Your task to perform on an android device: What's the weather today? Image 0: 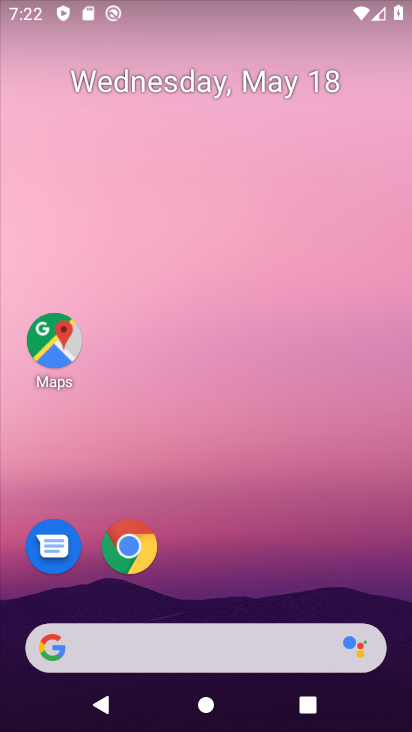
Step 0: drag from (357, 559) to (368, 64)
Your task to perform on an android device: What's the weather today? Image 1: 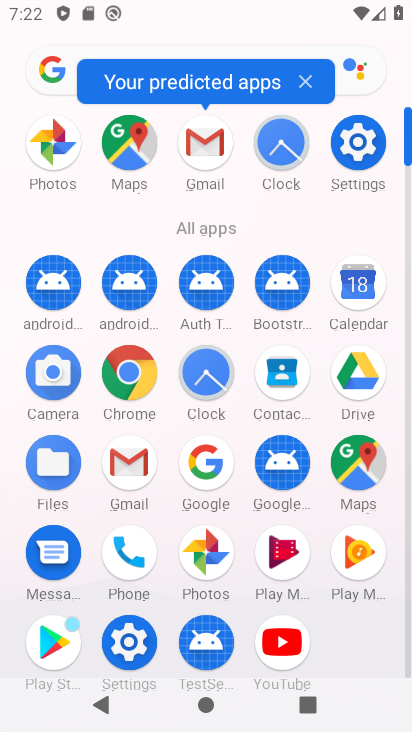
Step 1: drag from (369, 662) to (356, 412)
Your task to perform on an android device: What's the weather today? Image 2: 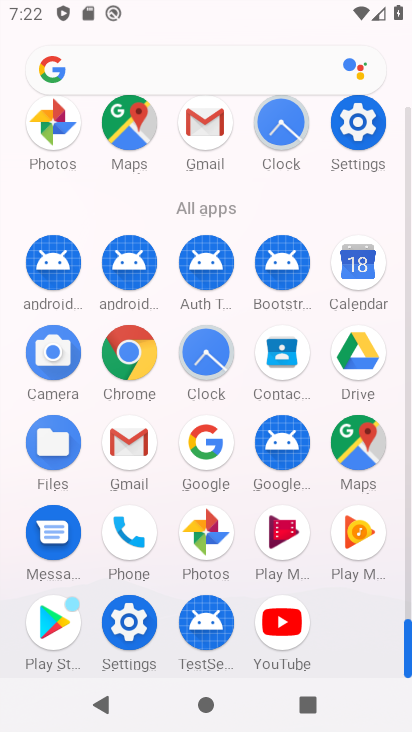
Step 2: click (206, 455)
Your task to perform on an android device: What's the weather today? Image 3: 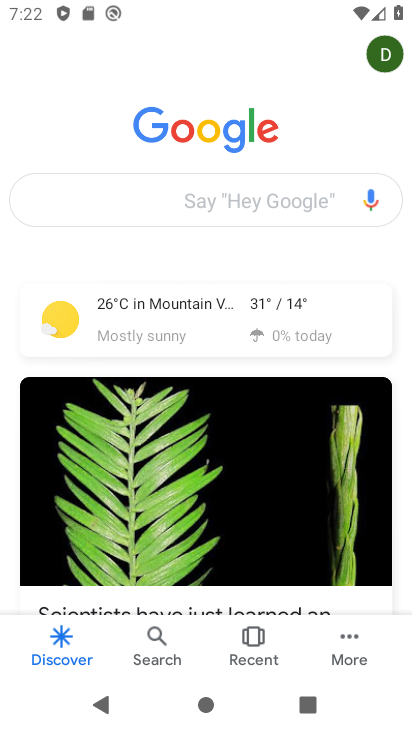
Step 3: click (195, 212)
Your task to perform on an android device: What's the weather today? Image 4: 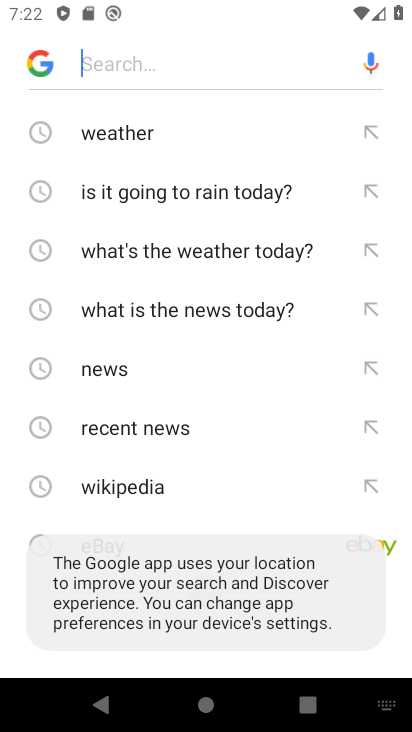
Step 4: click (157, 137)
Your task to perform on an android device: What's the weather today? Image 5: 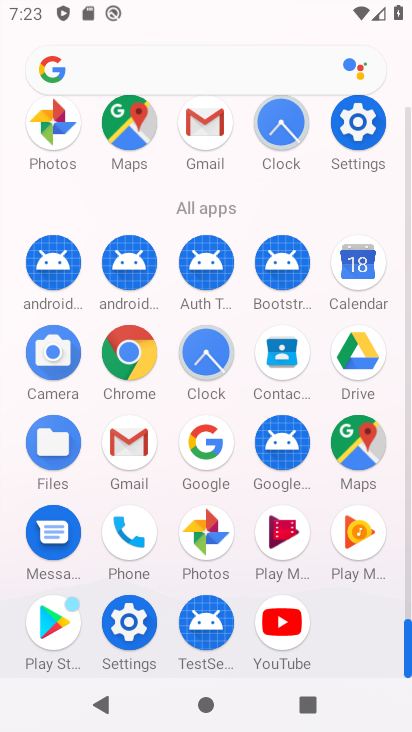
Step 5: click (208, 445)
Your task to perform on an android device: What's the weather today? Image 6: 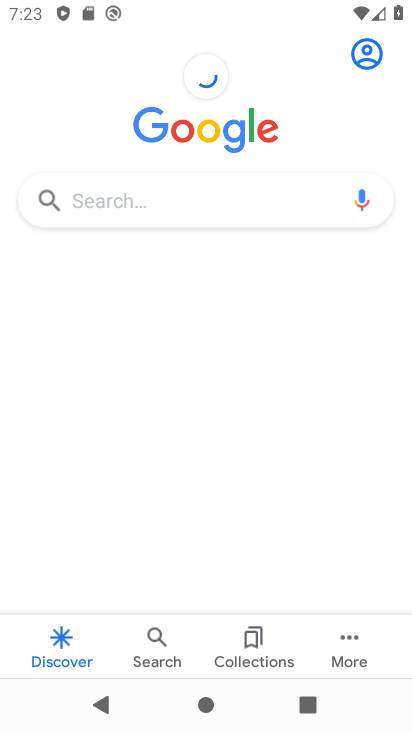
Step 6: click (193, 193)
Your task to perform on an android device: What's the weather today? Image 7: 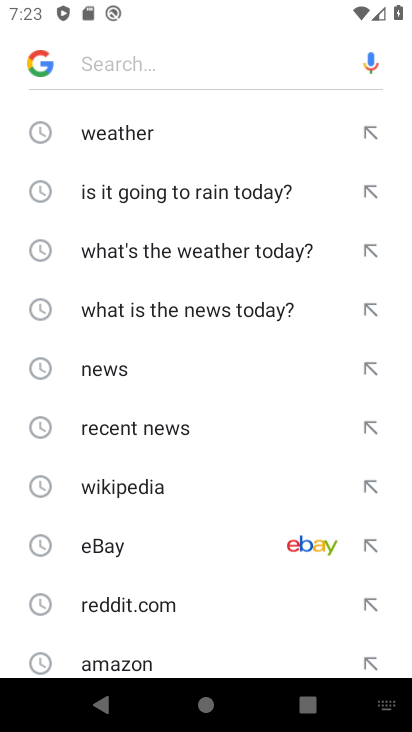
Step 7: click (163, 150)
Your task to perform on an android device: What's the weather today? Image 8: 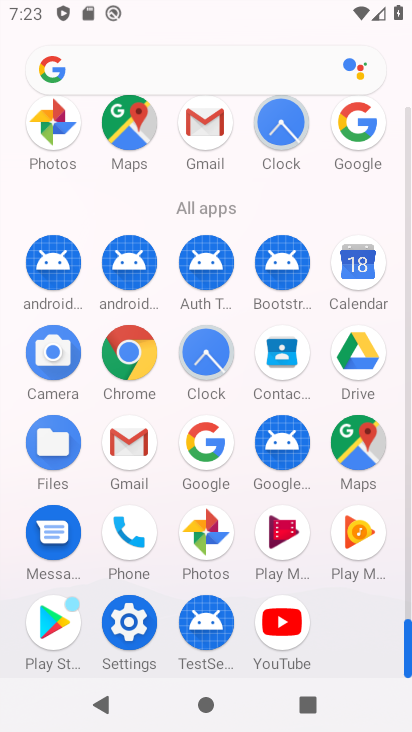
Step 8: click (209, 451)
Your task to perform on an android device: What's the weather today? Image 9: 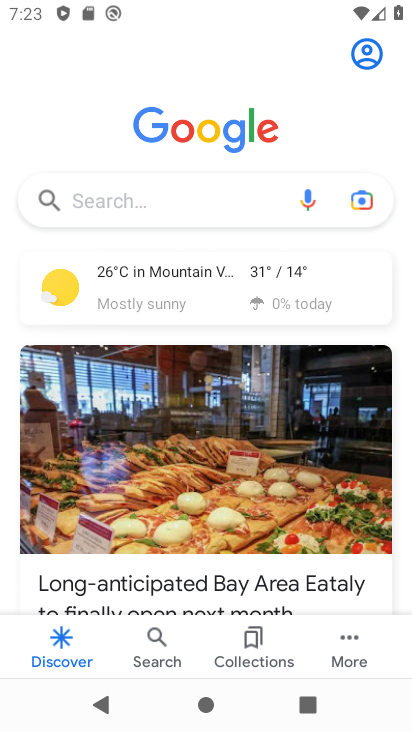
Step 9: click (111, 201)
Your task to perform on an android device: What's the weather today? Image 10: 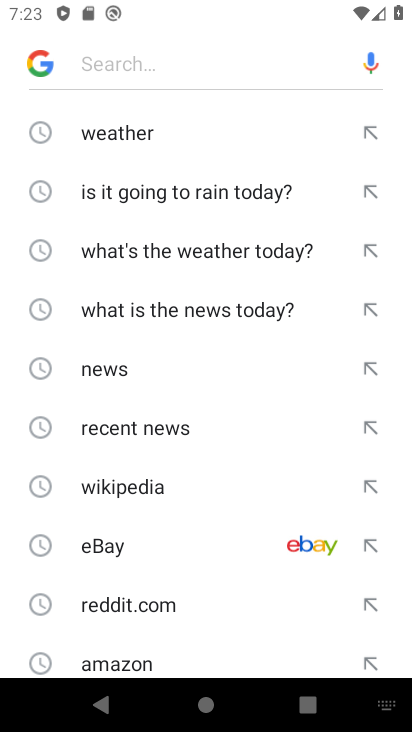
Step 10: click (124, 126)
Your task to perform on an android device: What's the weather today? Image 11: 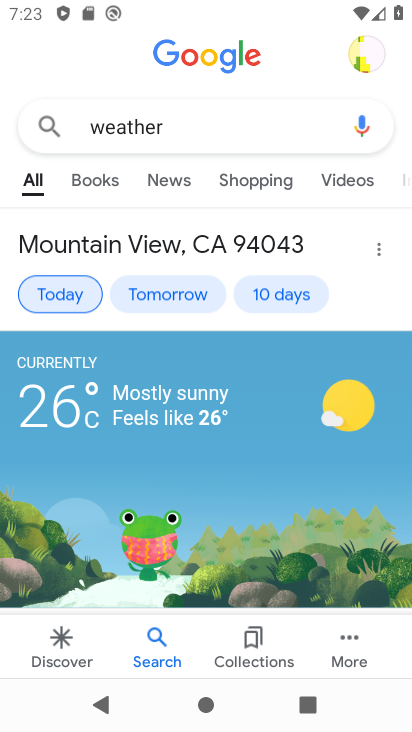
Step 11: task complete